Your task to perform on an android device: Go to location settings Image 0: 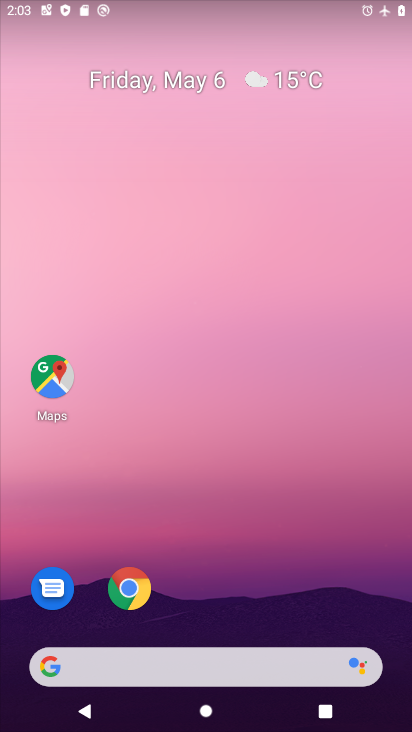
Step 0: drag from (195, 592) to (224, 62)
Your task to perform on an android device: Go to location settings Image 1: 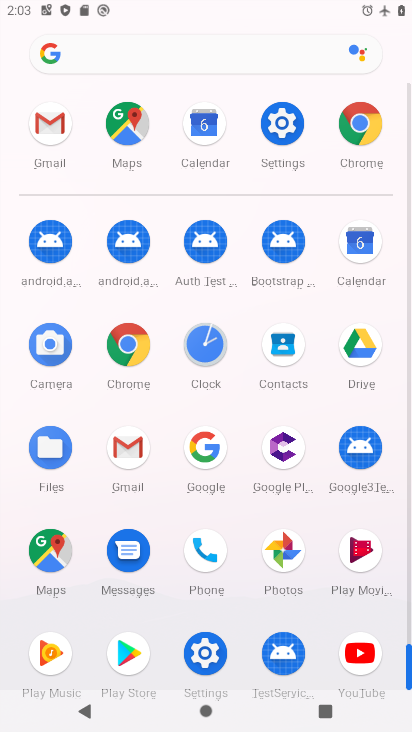
Step 1: click (280, 135)
Your task to perform on an android device: Go to location settings Image 2: 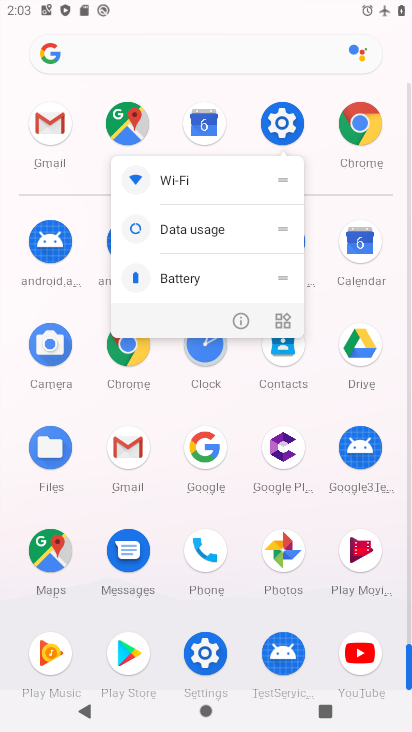
Step 2: click (247, 312)
Your task to perform on an android device: Go to location settings Image 3: 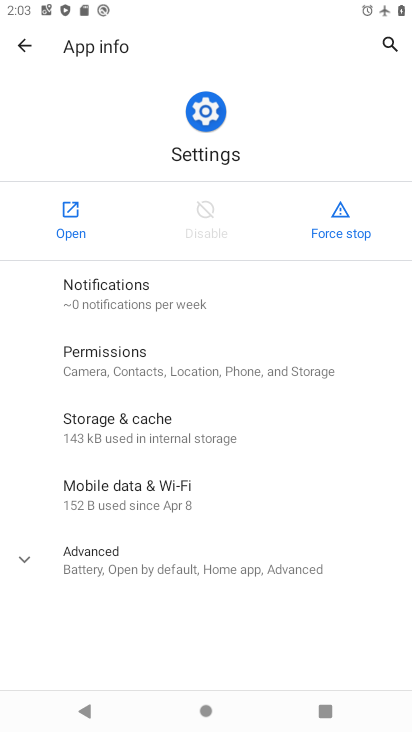
Step 3: click (78, 223)
Your task to perform on an android device: Go to location settings Image 4: 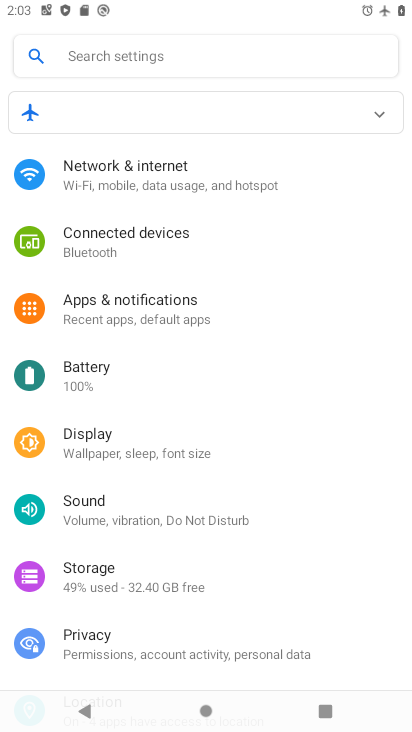
Step 4: drag from (194, 617) to (215, 319)
Your task to perform on an android device: Go to location settings Image 5: 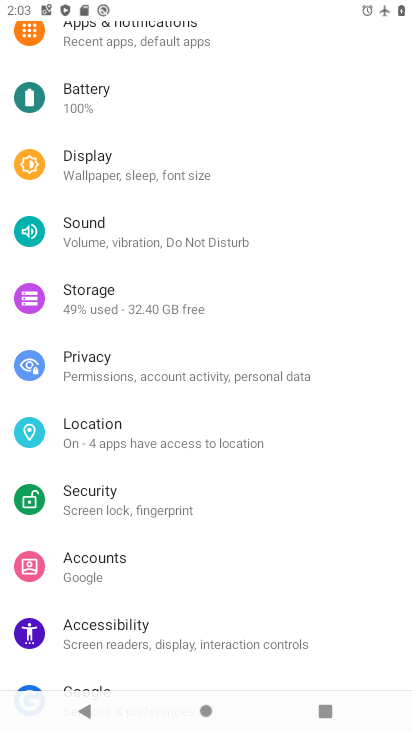
Step 5: drag from (184, 618) to (186, 424)
Your task to perform on an android device: Go to location settings Image 6: 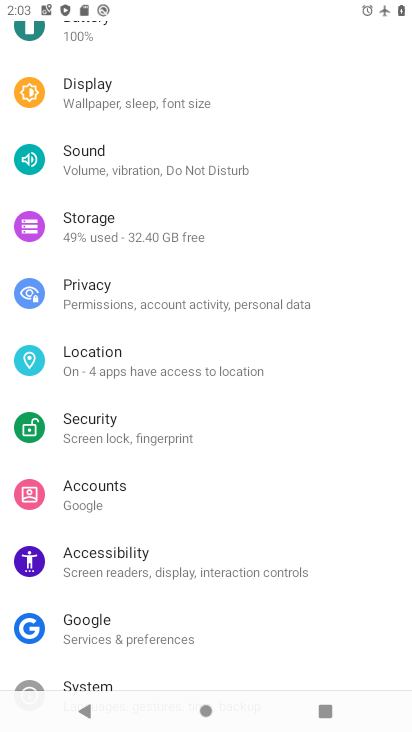
Step 6: drag from (223, 623) to (203, 192)
Your task to perform on an android device: Go to location settings Image 7: 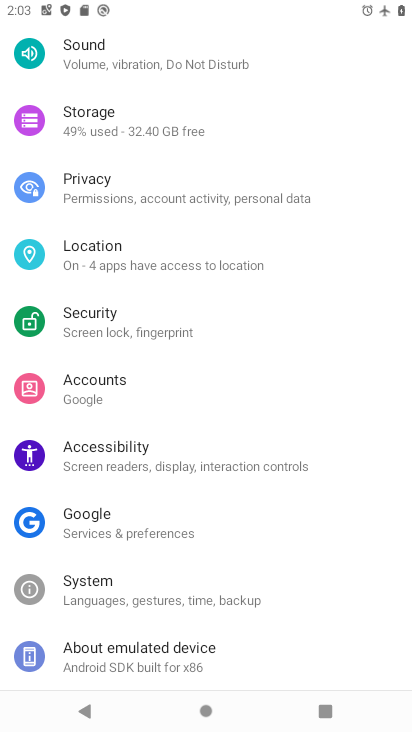
Step 7: click (122, 251)
Your task to perform on an android device: Go to location settings Image 8: 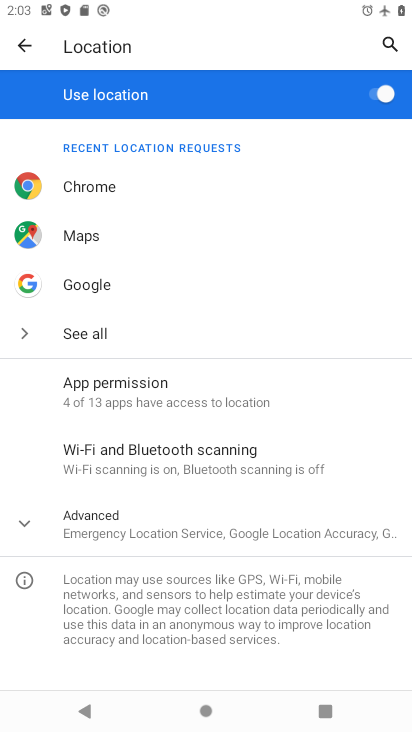
Step 8: drag from (206, 481) to (192, 166)
Your task to perform on an android device: Go to location settings Image 9: 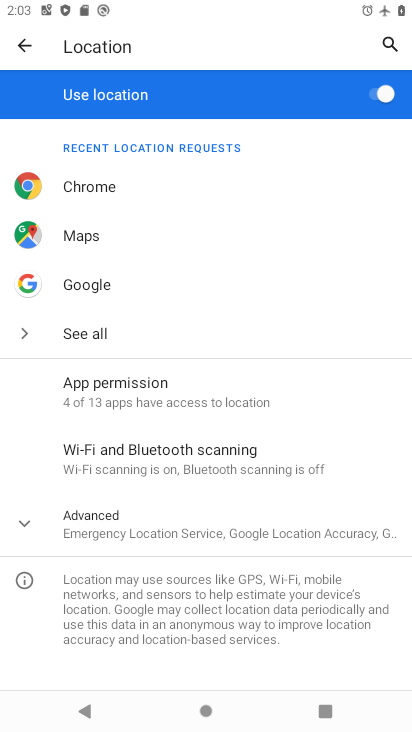
Step 9: click (144, 546)
Your task to perform on an android device: Go to location settings Image 10: 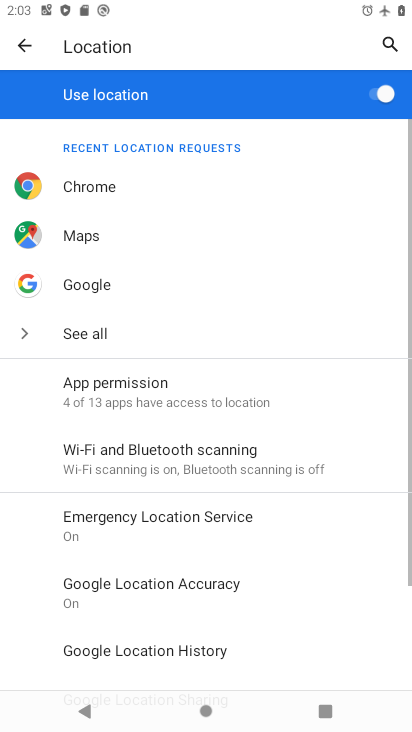
Step 10: drag from (177, 682) to (188, 408)
Your task to perform on an android device: Go to location settings Image 11: 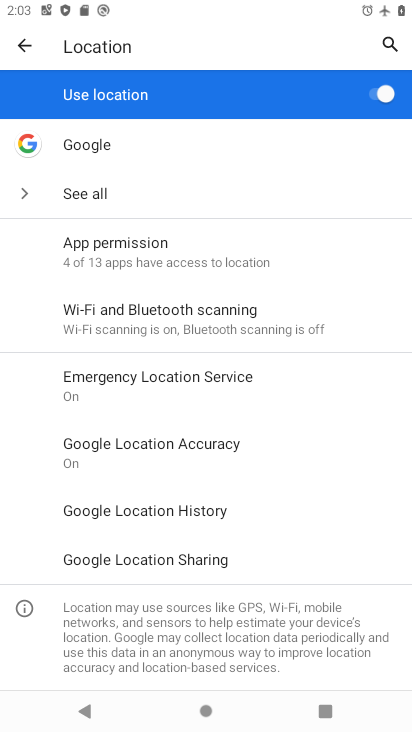
Step 11: click (228, 460)
Your task to perform on an android device: Go to location settings Image 12: 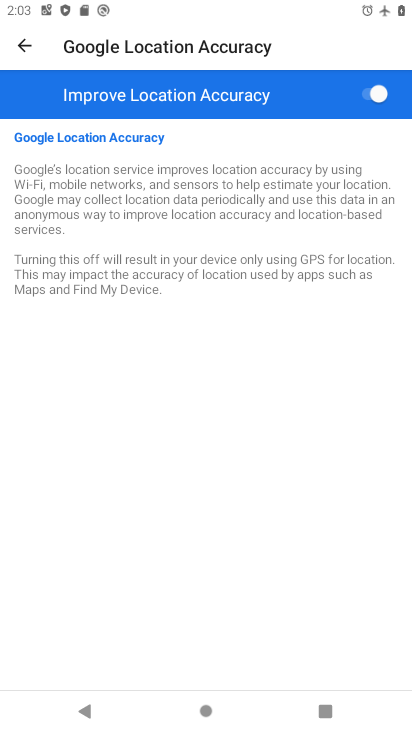
Step 12: drag from (224, 410) to (225, 361)
Your task to perform on an android device: Go to location settings Image 13: 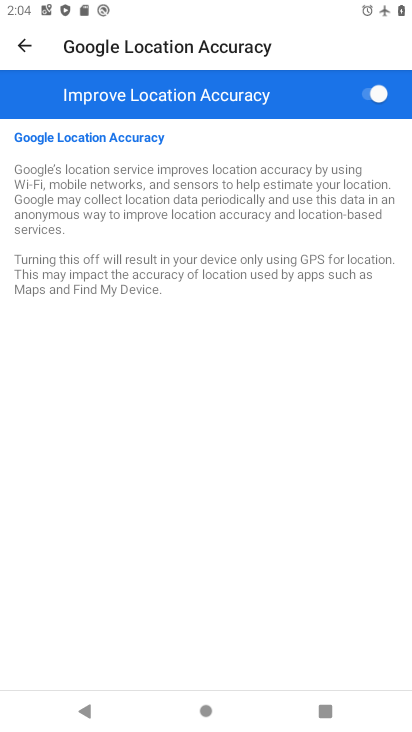
Step 13: click (33, 44)
Your task to perform on an android device: Go to location settings Image 14: 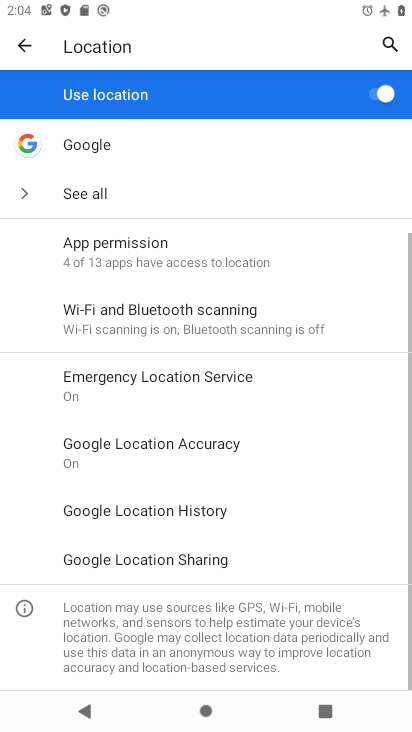
Step 14: task complete